Your task to perform on an android device: turn off smart reply in the gmail app Image 0: 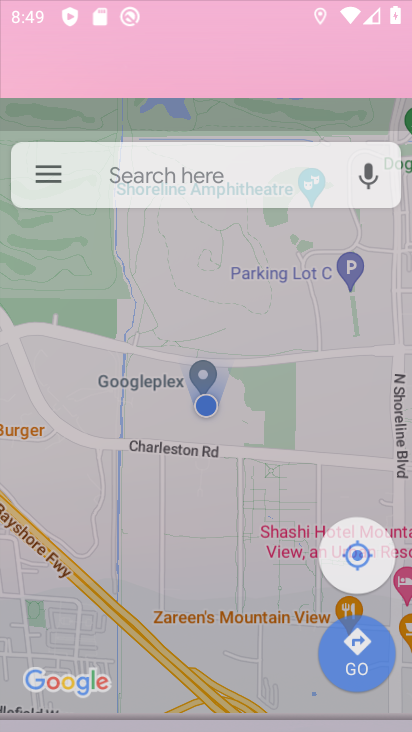
Step 0: press home button
Your task to perform on an android device: turn off smart reply in the gmail app Image 1: 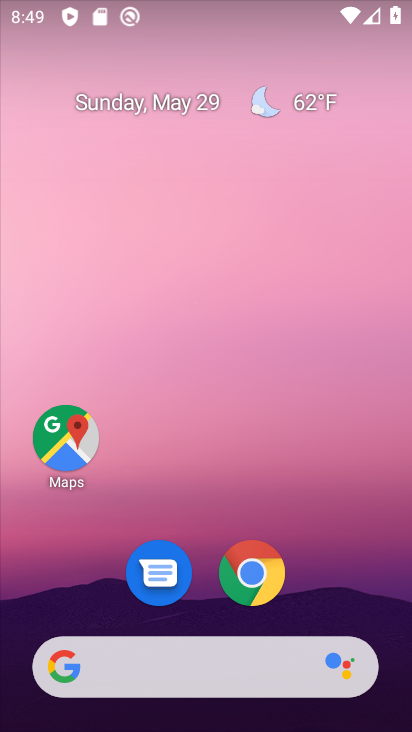
Step 1: drag from (343, 612) to (270, 194)
Your task to perform on an android device: turn off smart reply in the gmail app Image 2: 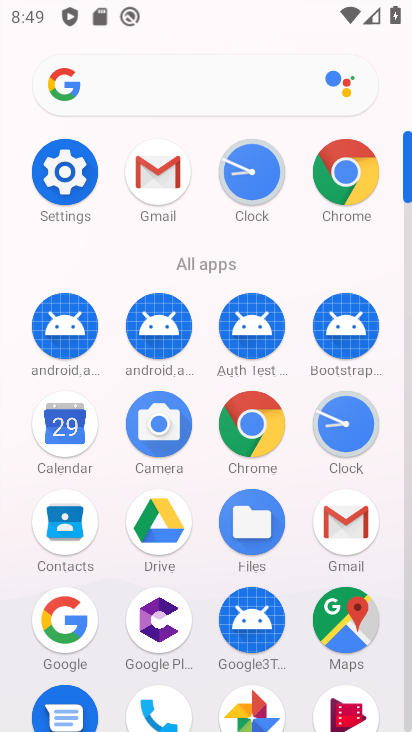
Step 2: click (161, 163)
Your task to perform on an android device: turn off smart reply in the gmail app Image 3: 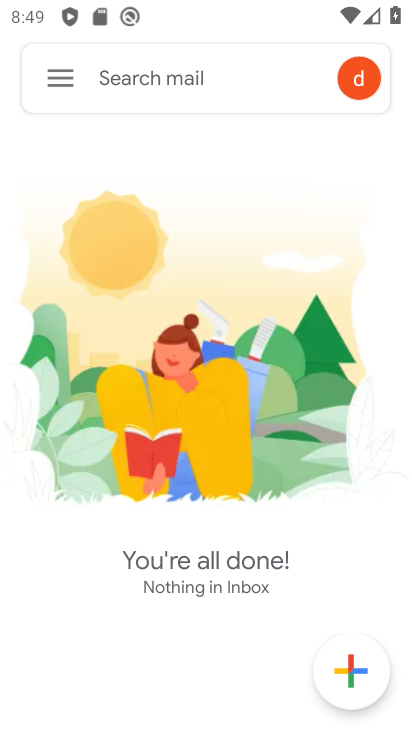
Step 3: click (60, 91)
Your task to perform on an android device: turn off smart reply in the gmail app Image 4: 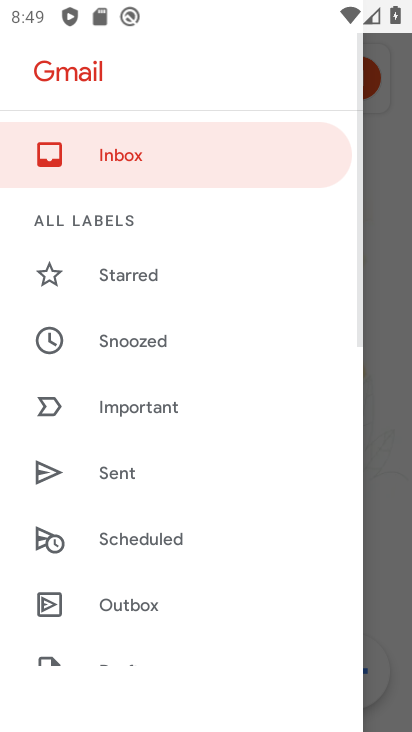
Step 4: drag from (240, 601) to (188, 147)
Your task to perform on an android device: turn off smart reply in the gmail app Image 5: 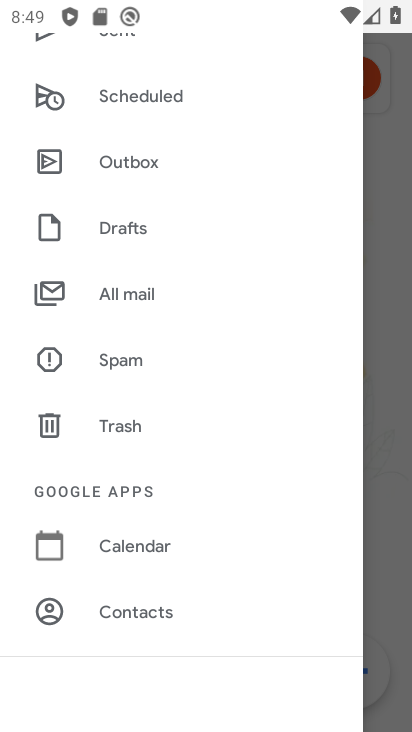
Step 5: drag from (284, 575) to (252, 197)
Your task to perform on an android device: turn off smart reply in the gmail app Image 6: 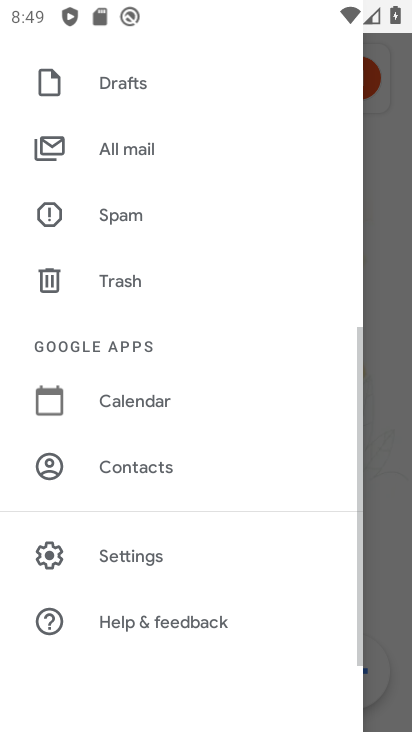
Step 6: click (133, 554)
Your task to perform on an android device: turn off smart reply in the gmail app Image 7: 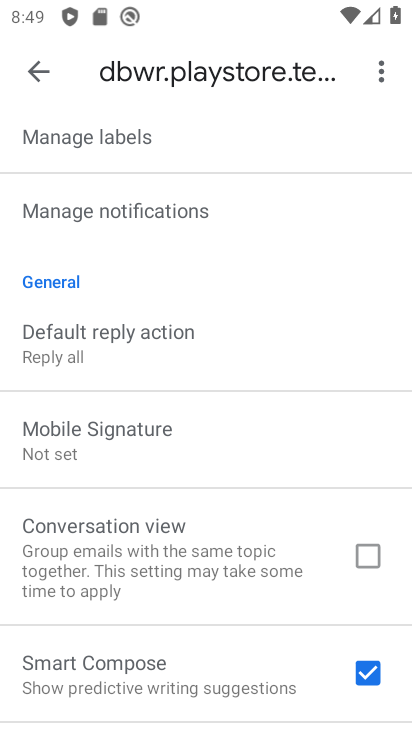
Step 7: drag from (277, 458) to (223, 139)
Your task to perform on an android device: turn off smart reply in the gmail app Image 8: 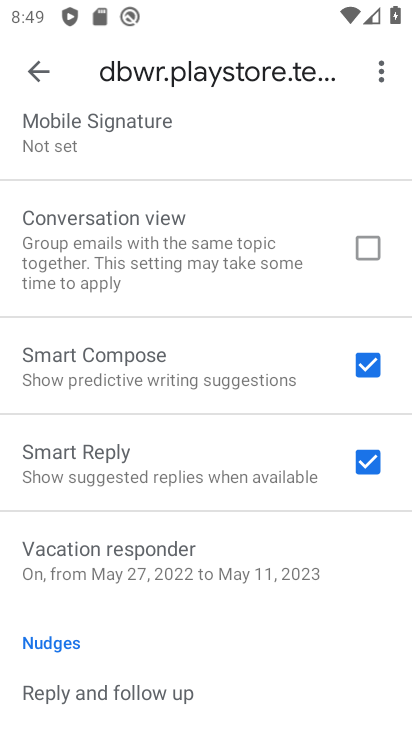
Step 8: click (370, 463)
Your task to perform on an android device: turn off smart reply in the gmail app Image 9: 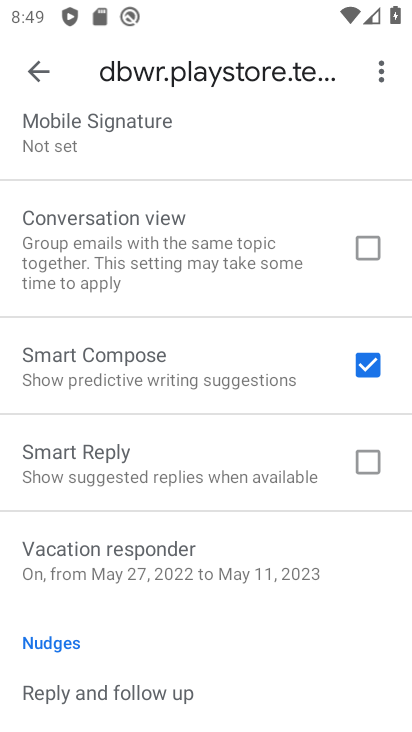
Step 9: task complete